Your task to perform on an android device: install app "VLC for Android" Image 0: 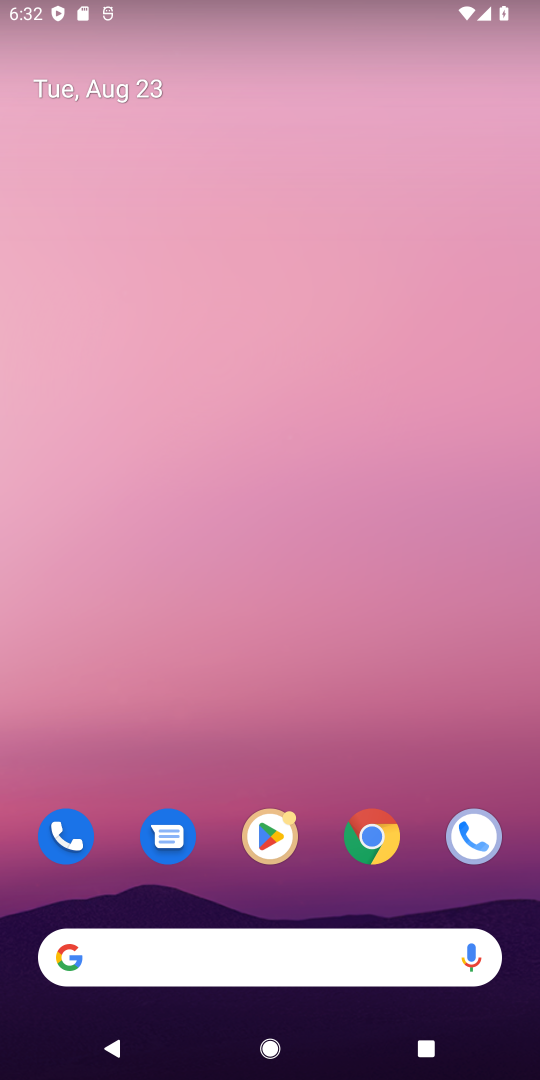
Step 0: click (267, 831)
Your task to perform on an android device: install app "VLC for Android" Image 1: 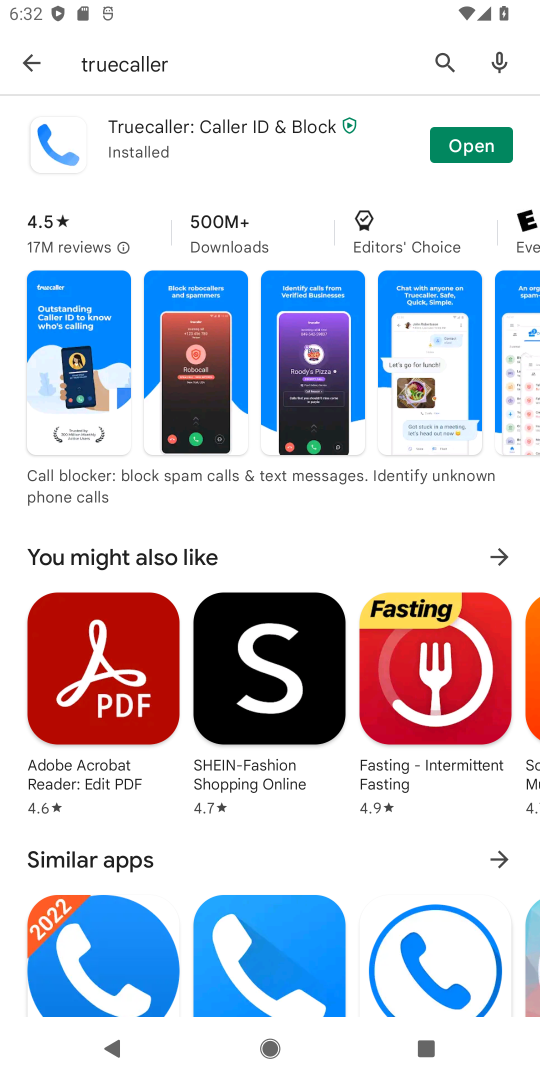
Step 1: click (446, 48)
Your task to perform on an android device: install app "VLC for Android" Image 2: 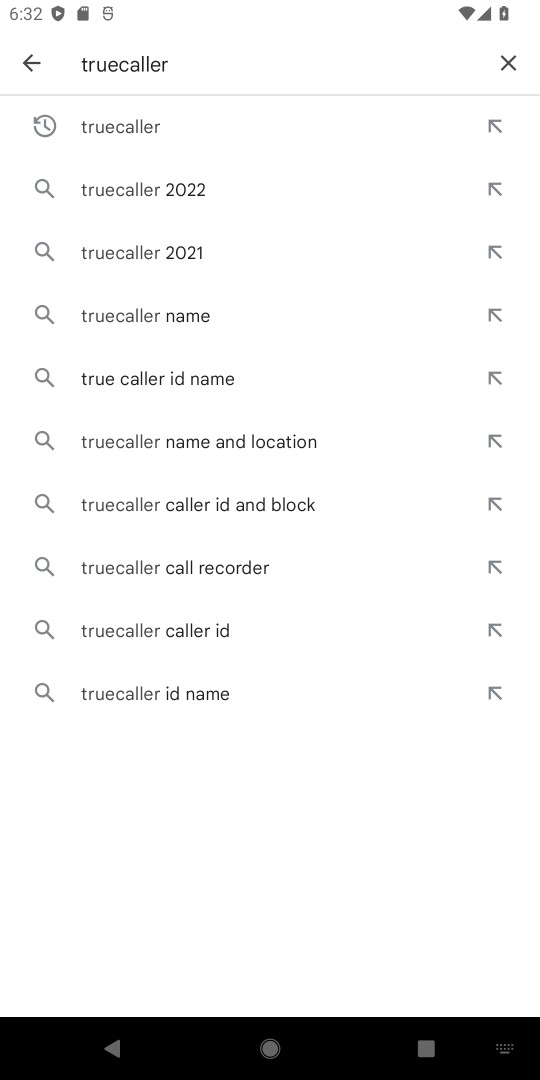
Step 2: click (500, 64)
Your task to perform on an android device: install app "VLC for Android" Image 3: 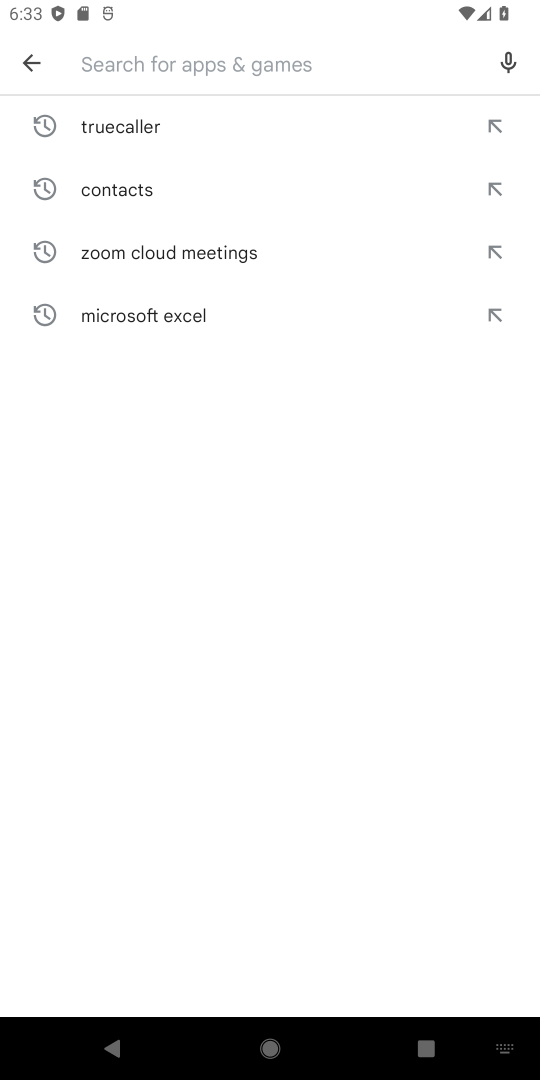
Step 3: type "VLC for Android"
Your task to perform on an android device: install app "VLC for Android" Image 4: 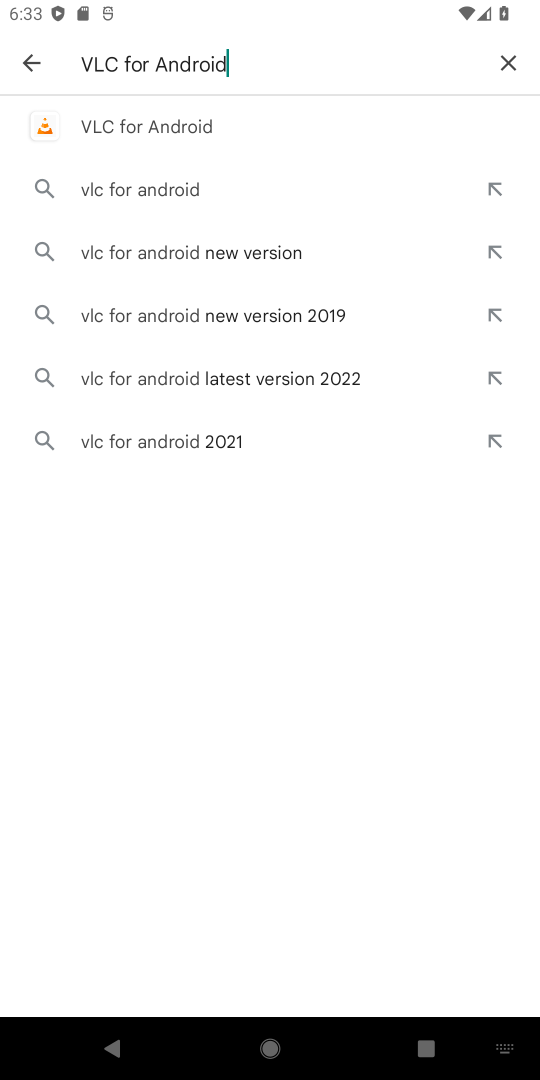
Step 4: click (178, 121)
Your task to perform on an android device: install app "VLC for Android" Image 5: 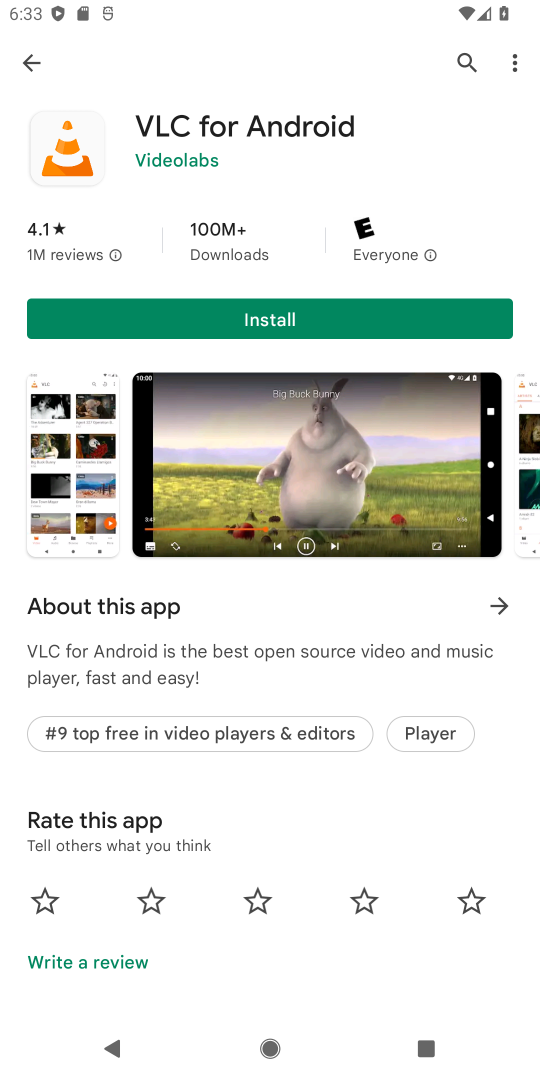
Step 5: click (292, 324)
Your task to perform on an android device: install app "VLC for Android" Image 6: 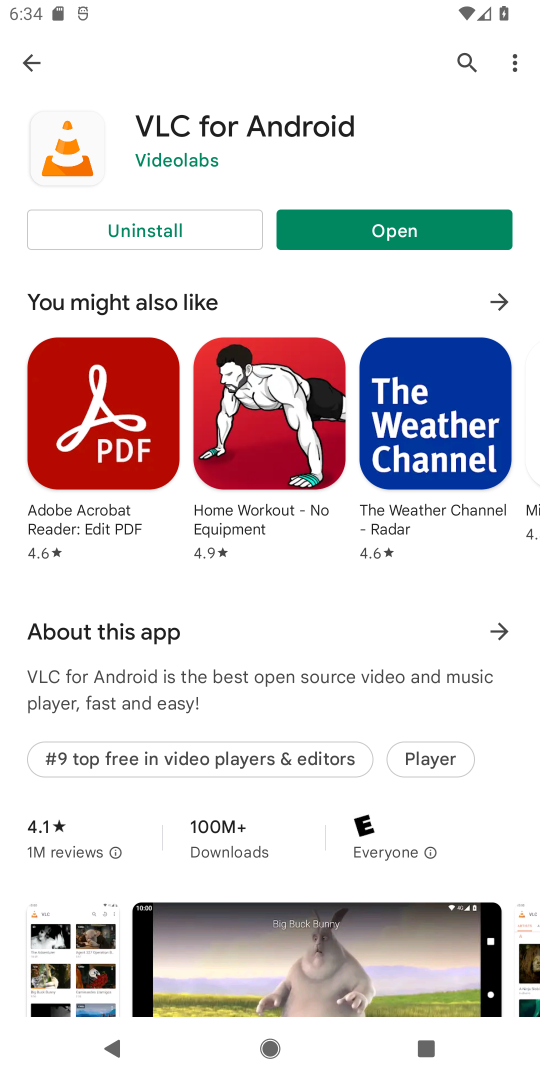
Step 6: task complete